Your task to perform on an android device: change the clock display to analog Image 0: 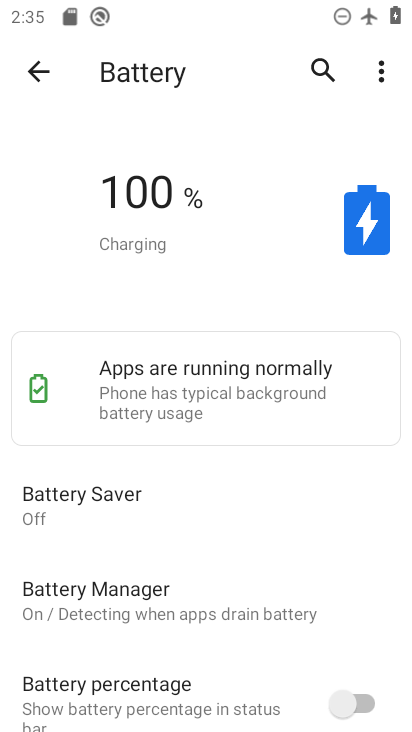
Step 0: press home button
Your task to perform on an android device: change the clock display to analog Image 1: 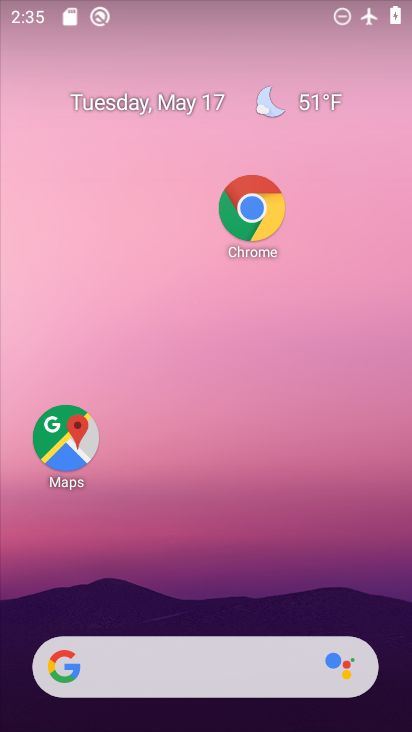
Step 1: drag from (241, 609) to (241, 133)
Your task to perform on an android device: change the clock display to analog Image 2: 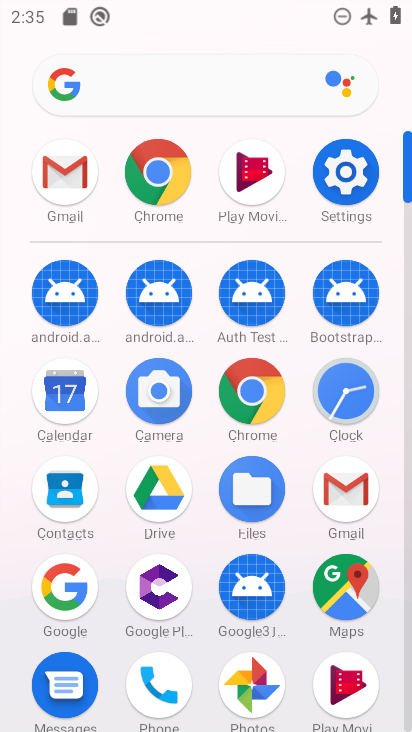
Step 2: click (350, 394)
Your task to perform on an android device: change the clock display to analog Image 3: 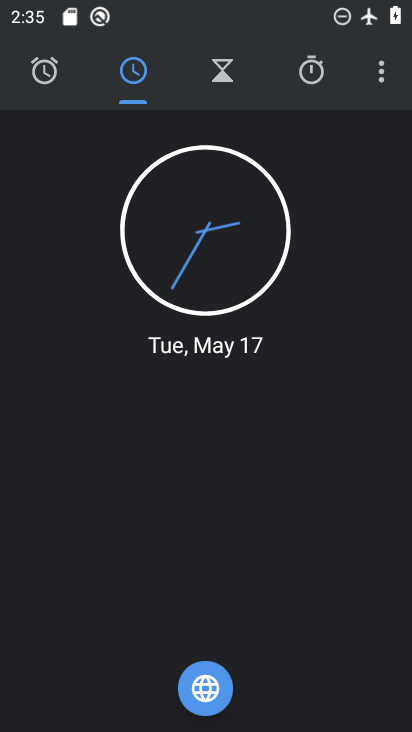
Step 3: click (380, 82)
Your task to perform on an android device: change the clock display to analog Image 4: 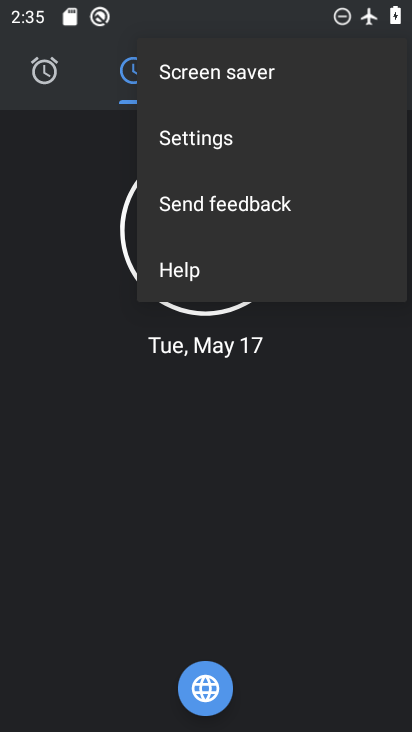
Step 4: click (182, 154)
Your task to perform on an android device: change the clock display to analog Image 5: 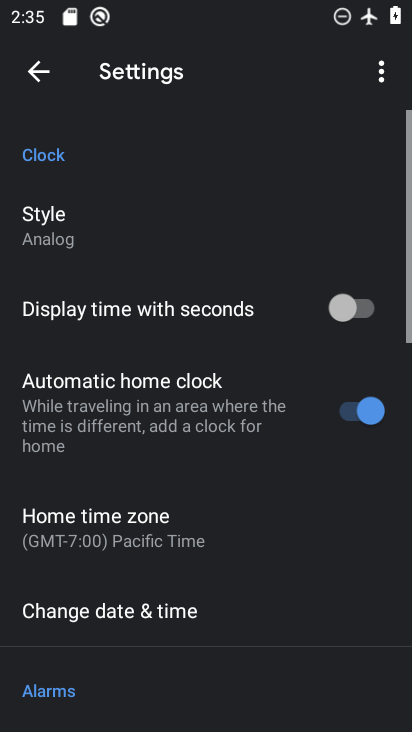
Step 5: click (29, 228)
Your task to perform on an android device: change the clock display to analog Image 6: 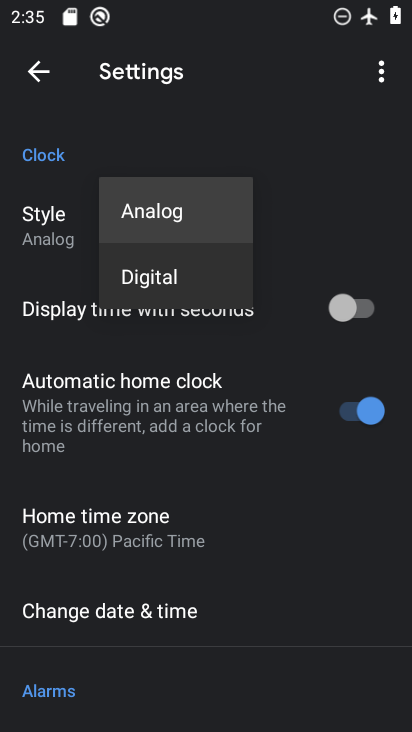
Step 6: click (145, 224)
Your task to perform on an android device: change the clock display to analog Image 7: 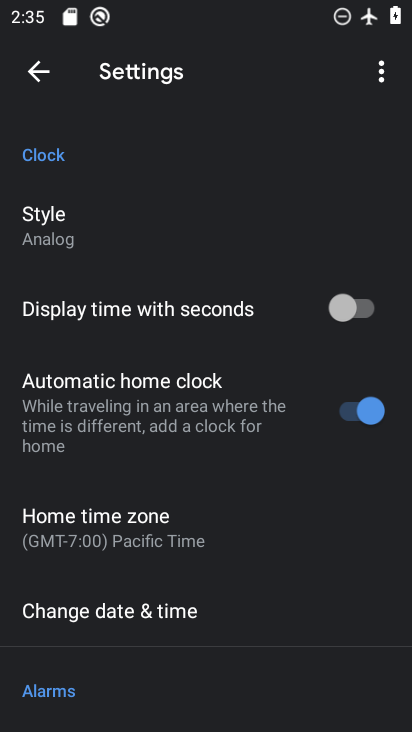
Step 7: task complete